Your task to perform on an android device: change alarm snooze length Image 0: 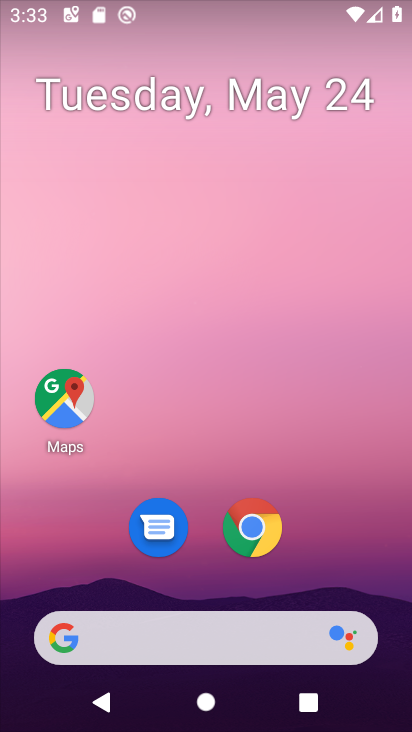
Step 0: drag from (354, 601) to (312, 9)
Your task to perform on an android device: change alarm snooze length Image 1: 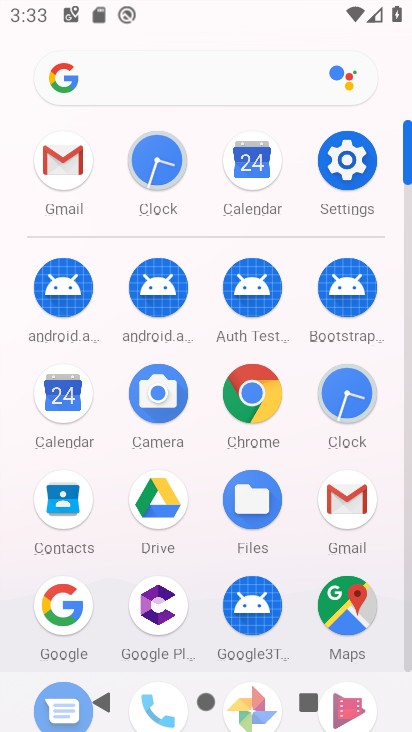
Step 1: click (158, 165)
Your task to perform on an android device: change alarm snooze length Image 2: 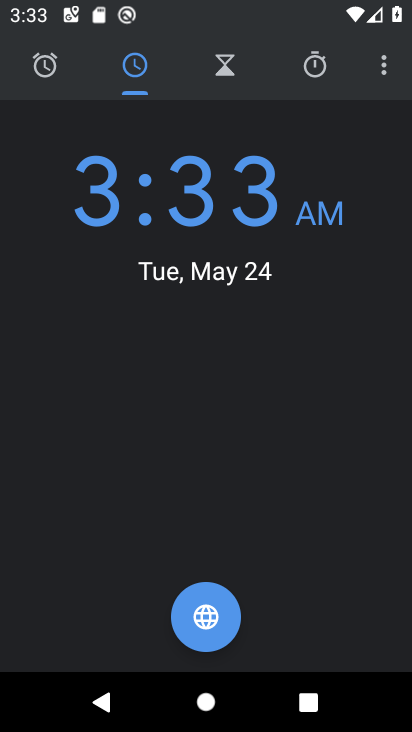
Step 2: click (390, 70)
Your task to perform on an android device: change alarm snooze length Image 3: 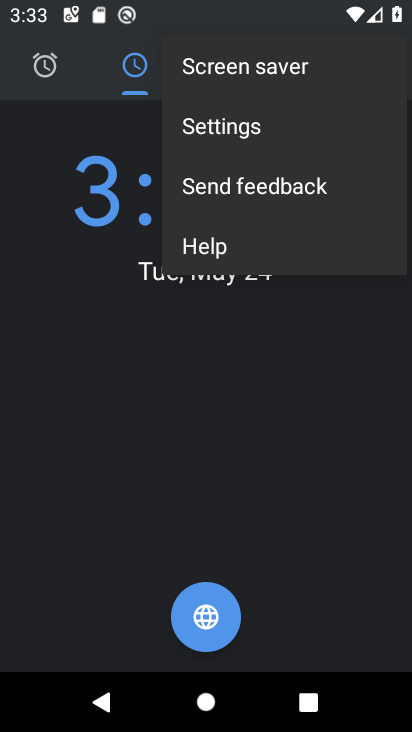
Step 3: click (228, 131)
Your task to perform on an android device: change alarm snooze length Image 4: 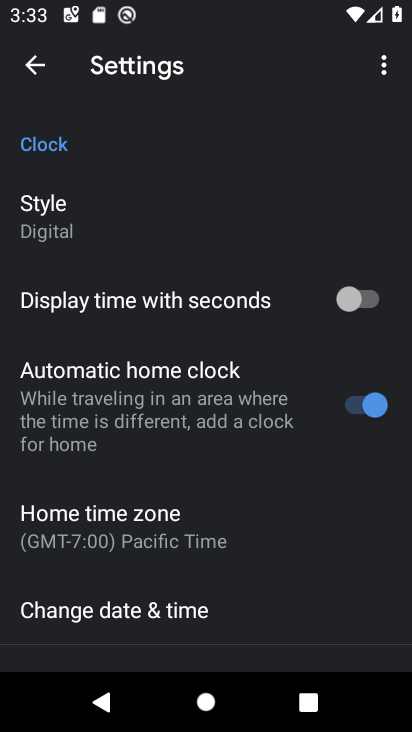
Step 4: drag from (193, 448) to (191, 173)
Your task to perform on an android device: change alarm snooze length Image 5: 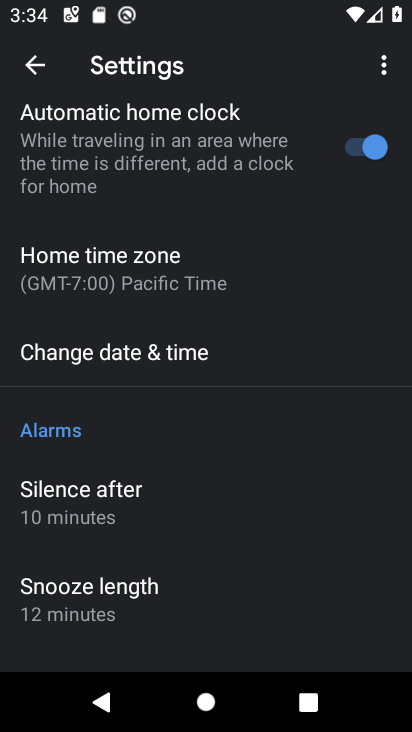
Step 5: drag from (201, 525) to (194, 368)
Your task to perform on an android device: change alarm snooze length Image 6: 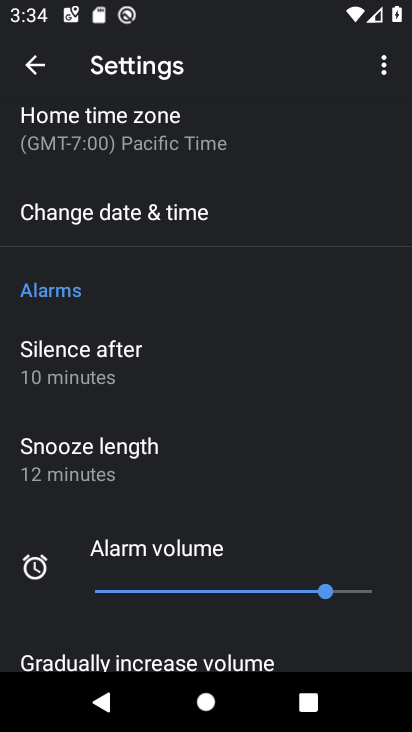
Step 6: click (114, 444)
Your task to perform on an android device: change alarm snooze length Image 7: 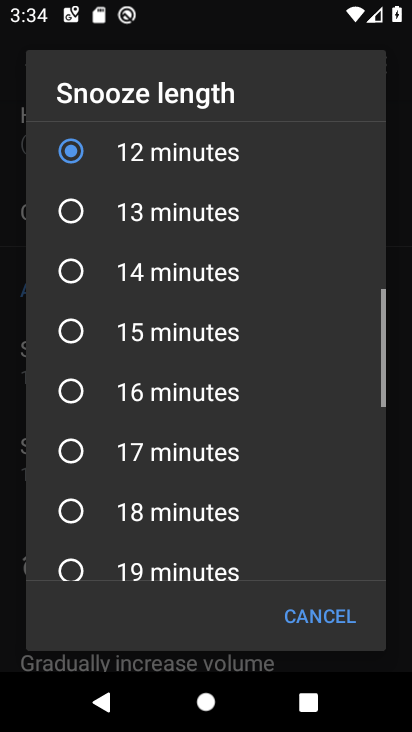
Step 7: click (91, 332)
Your task to perform on an android device: change alarm snooze length Image 8: 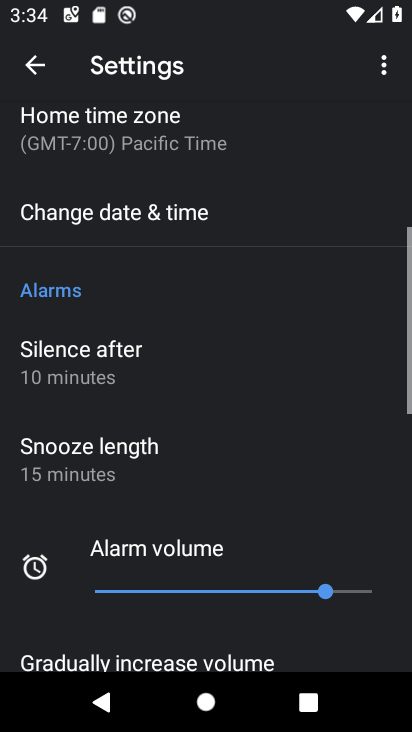
Step 8: task complete